Your task to perform on an android device: turn on data saver in the chrome app Image 0: 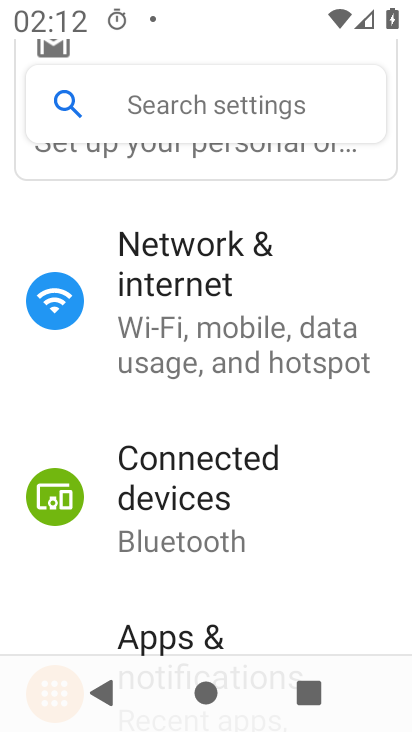
Step 0: press home button
Your task to perform on an android device: turn on data saver in the chrome app Image 1: 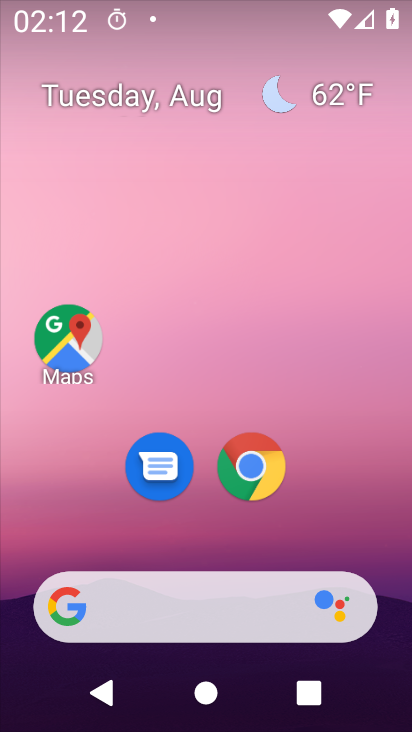
Step 1: drag from (375, 562) to (410, 210)
Your task to perform on an android device: turn on data saver in the chrome app Image 2: 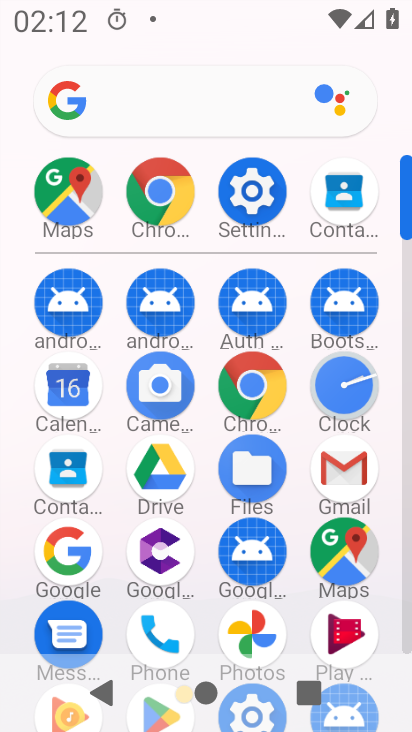
Step 2: click (261, 389)
Your task to perform on an android device: turn on data saver in the chrome app Image 3: 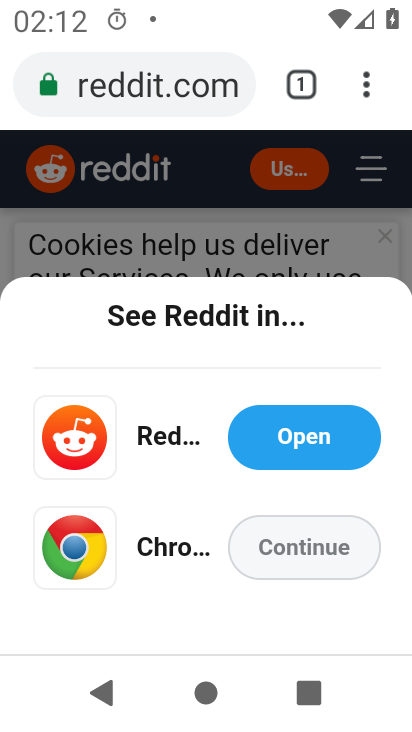
Step 3: click (365, 90)
Your task to perform on an android device: turn on data saver in the chrome app Image 4: 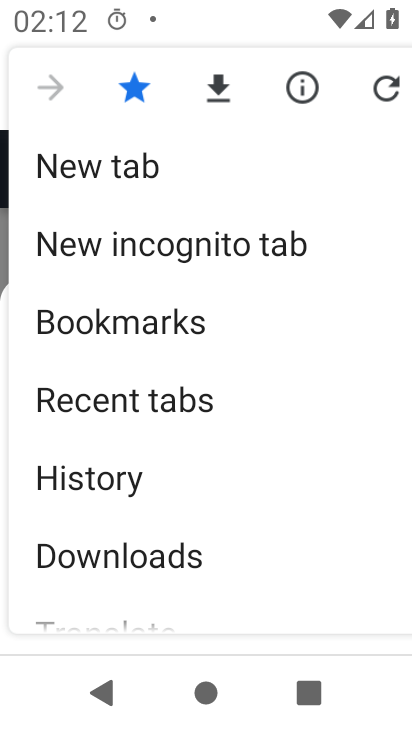
Step 4: drag from (362, 493) to (366, 323)
Your task to perform on an android device: turn on data saver in the chrome app Image 5: 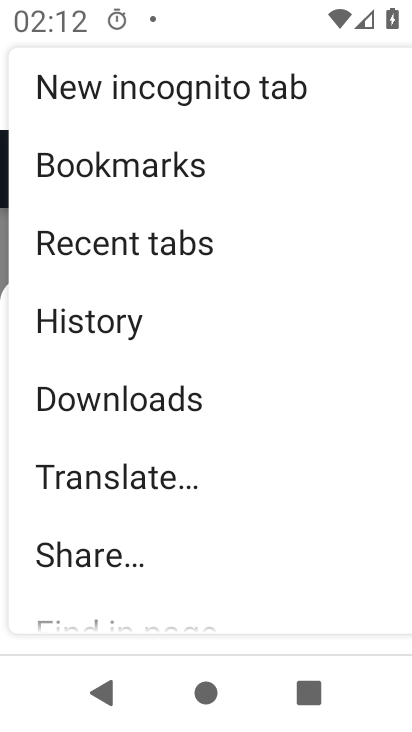
Step 5: drag from (352, 481) to (349, 358)
Your task to perform on an android device: turn on data saver in the chrome app Image 6: 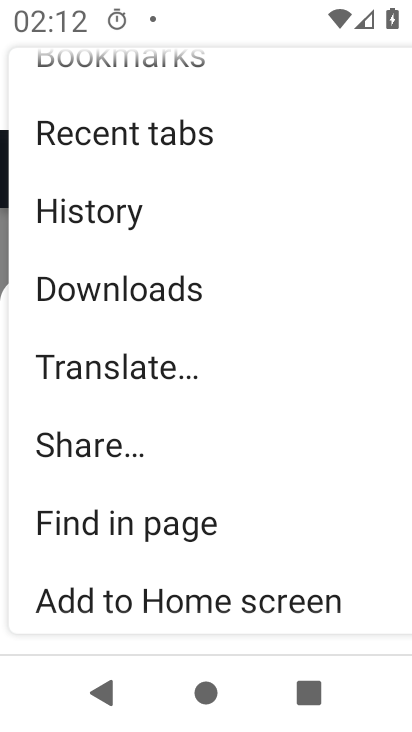
Step 6: drag from (308, 514) to (332, 384)
Your task to perform on an android device: turn on data saver in the chrome app Image 7: 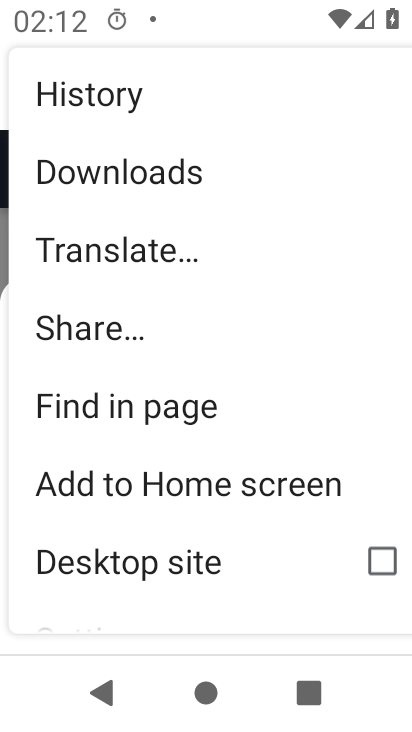
Step 7: drag from (284, 544) to (306, 407)
Your task to perform on an android device: turn on data saver in the chrome app Image 8: 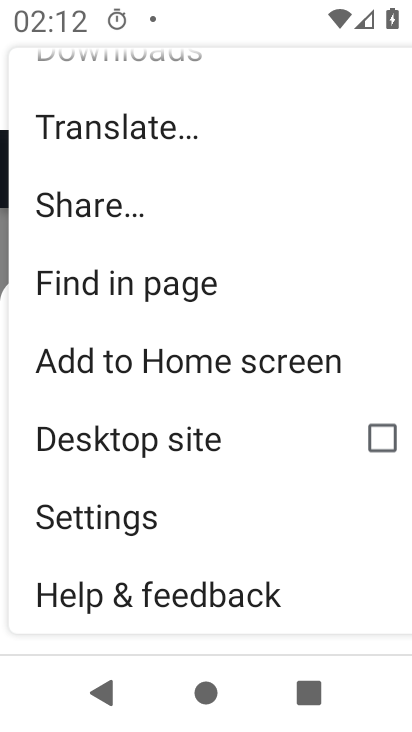
Step 8: drag from (262, 535) to (280, 398)
Your task to perform on an android device: turn on data saver in the chrome app Image 9: 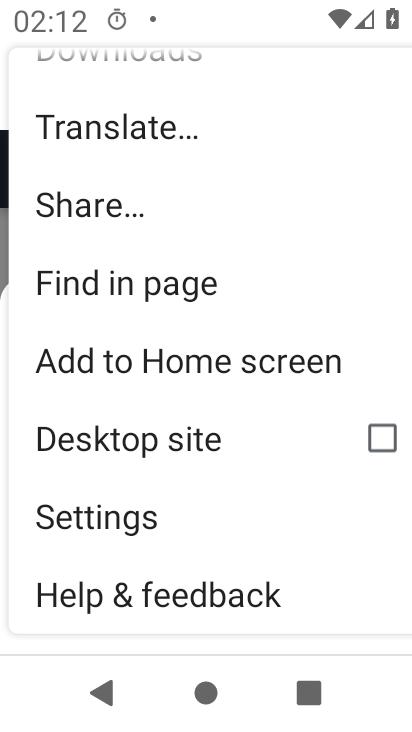
Step 9: click (230, 522)
Your task to perform on an android device: turn on data saver in the chrome app Image 10: 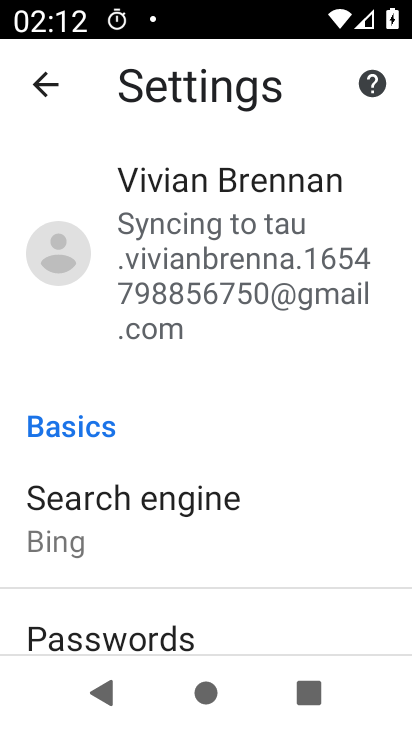
Step 10: drag from (326, 579) to (349, 427)
Your task to perform on an android device: turn on data saver in the chrome app Image 11: 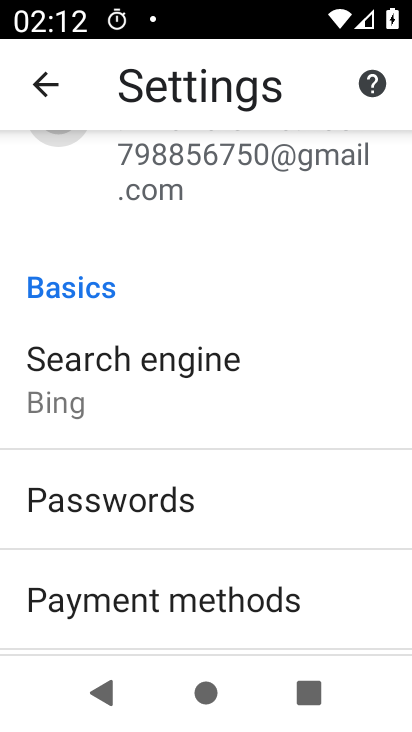
Step 11: drag from (339, 556) to (341, 347)
Your task to perform on an android device: turn on data saver in the chrome app Image 12: 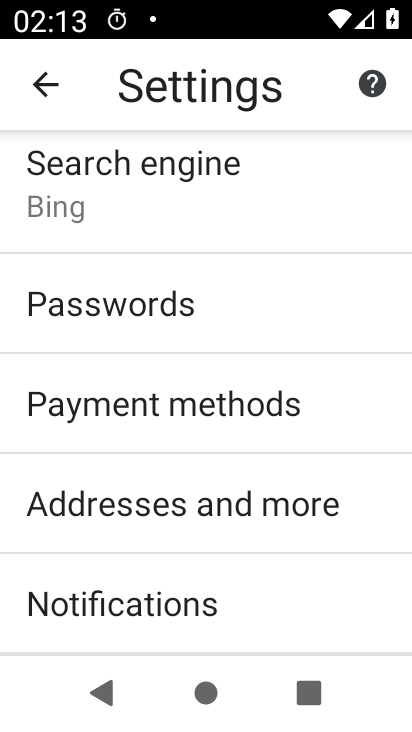
Step 12: drag from (338, 561) to (334, 317)
Your task to perform on an android device: turn on data saver in the chrome app Image 13: 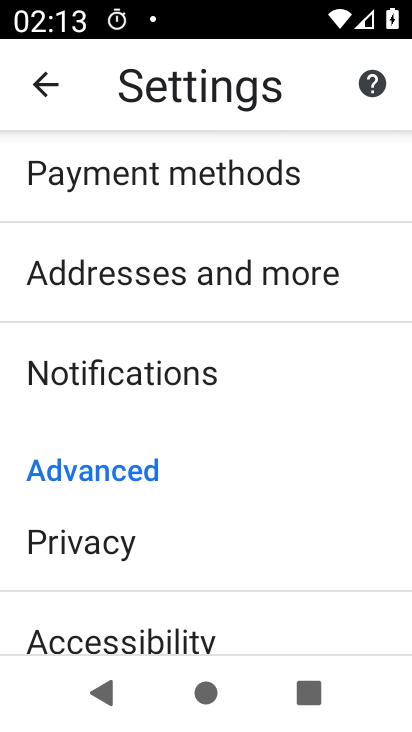
Step 13: drag from (303, 537) to (304, 350)
Your task to perform on an android device: turn on data saver in the chrome app Image 14: 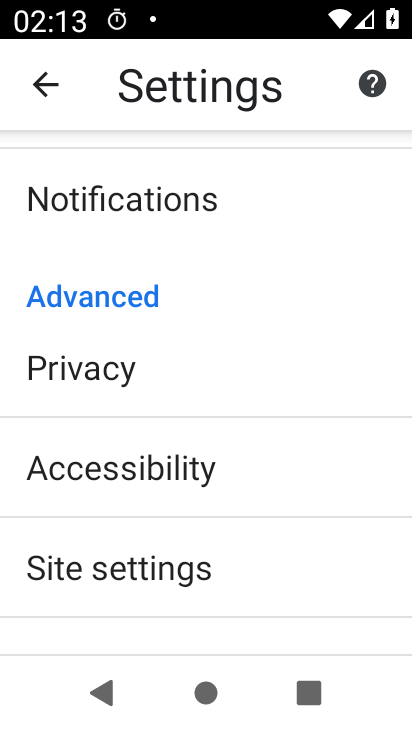
Step 14: drag from (304, 564) to (304, 364)
Your task to perform on an android device: turn on data saver in the chrome app Image 15: 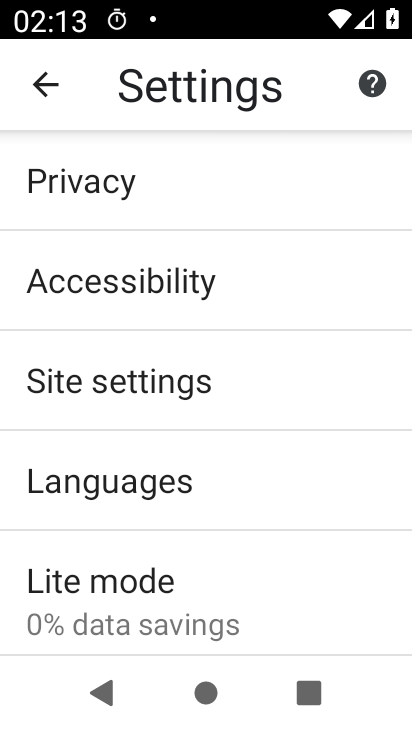
Step 15: drag from (289, 560) to (306, 378)
Your task to perform on an android device: turn on data saver in the chrome app Image 16: 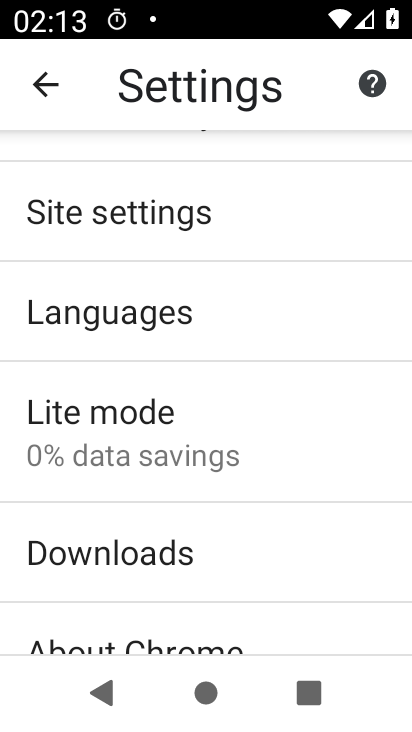
Step 16: drag from (295, 607) to (299, 362)
Your task to perform on an android device: turn on data saver in the chrome app Image 17: 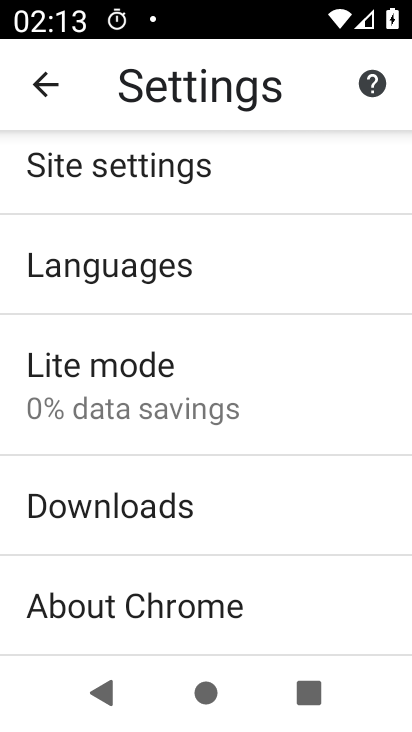
Step 17: click (245, 394)
Your task to perform on an android device: turn on data saver in the chrome app Image 18: 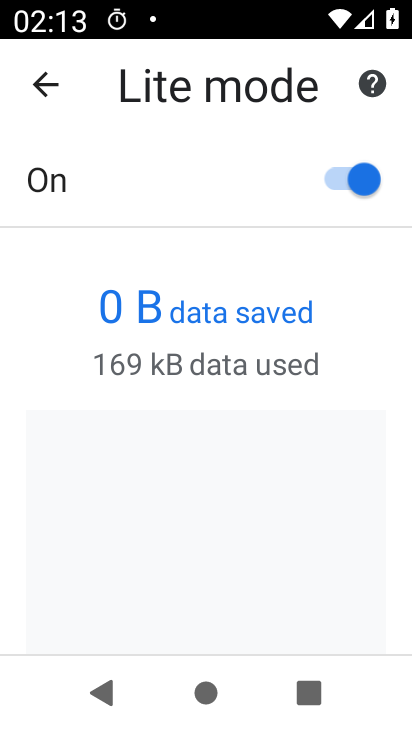
Step 18: task complete